Your task to perform on an android device: Search for razer nari on target.com, select the first entry, add it to the cart, then select checkout. Image 0: 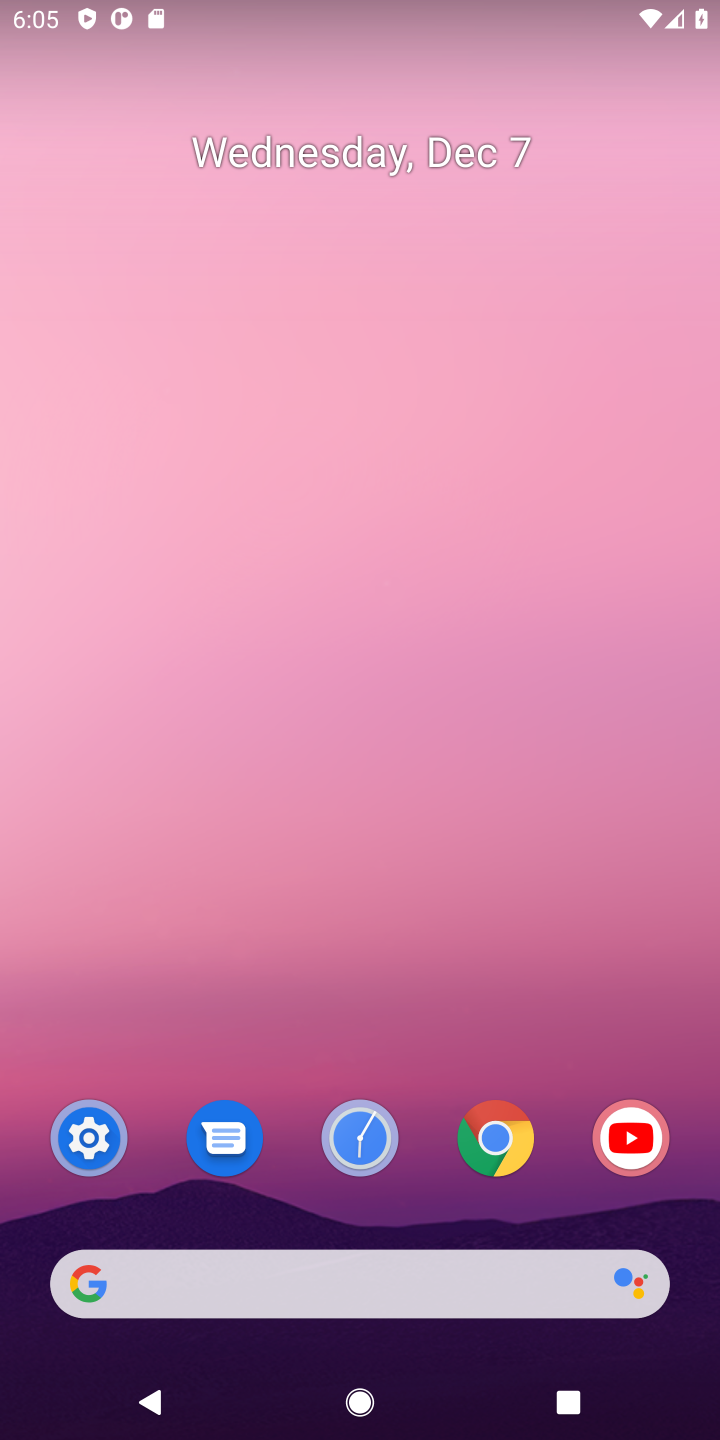
Step 0: press home button
Your task to perform on an android device: Search for razer nari on target.com, select the first entry, add it to the cart, then select checkout. Image 1: 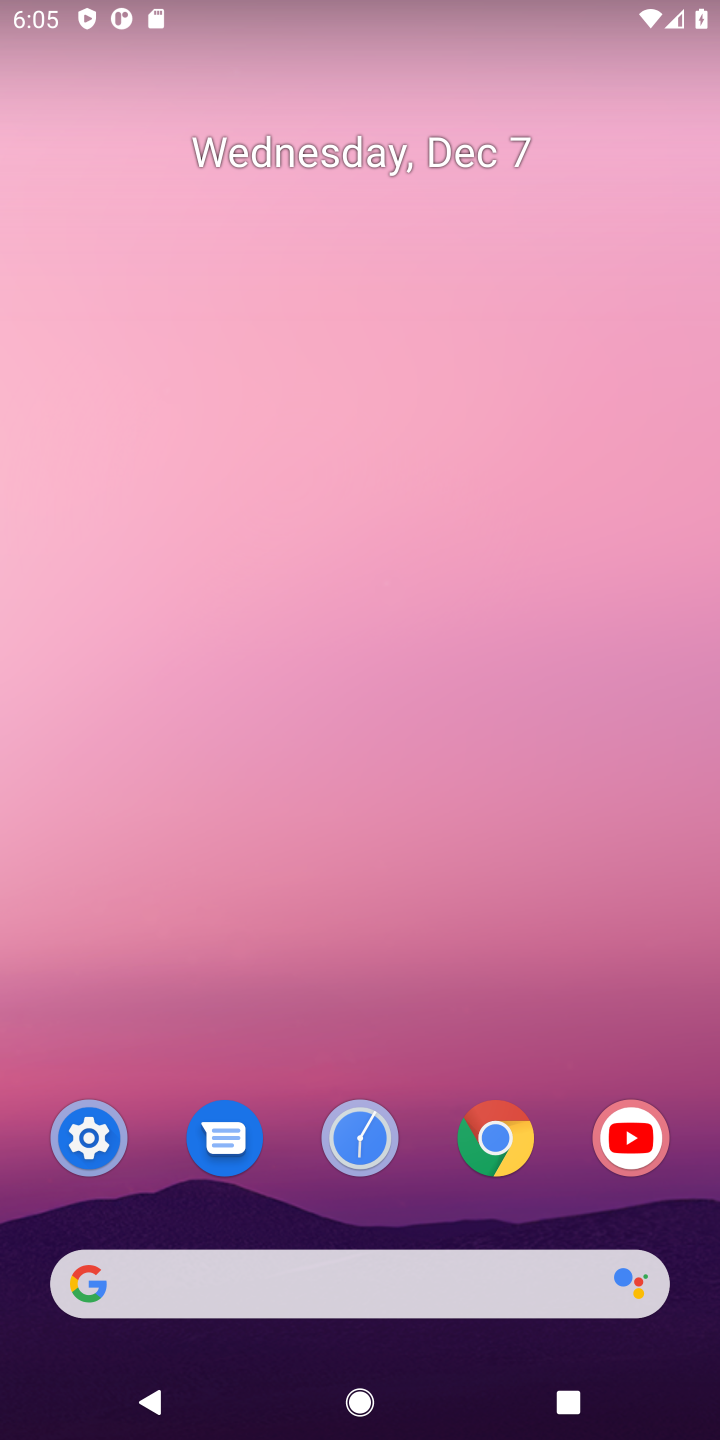
Step 1: click (140, 1290)
Your task to perform on an android device: Search for razer nari on target.com, select the first entry, add it to the cart, then select checkout. Image 2: 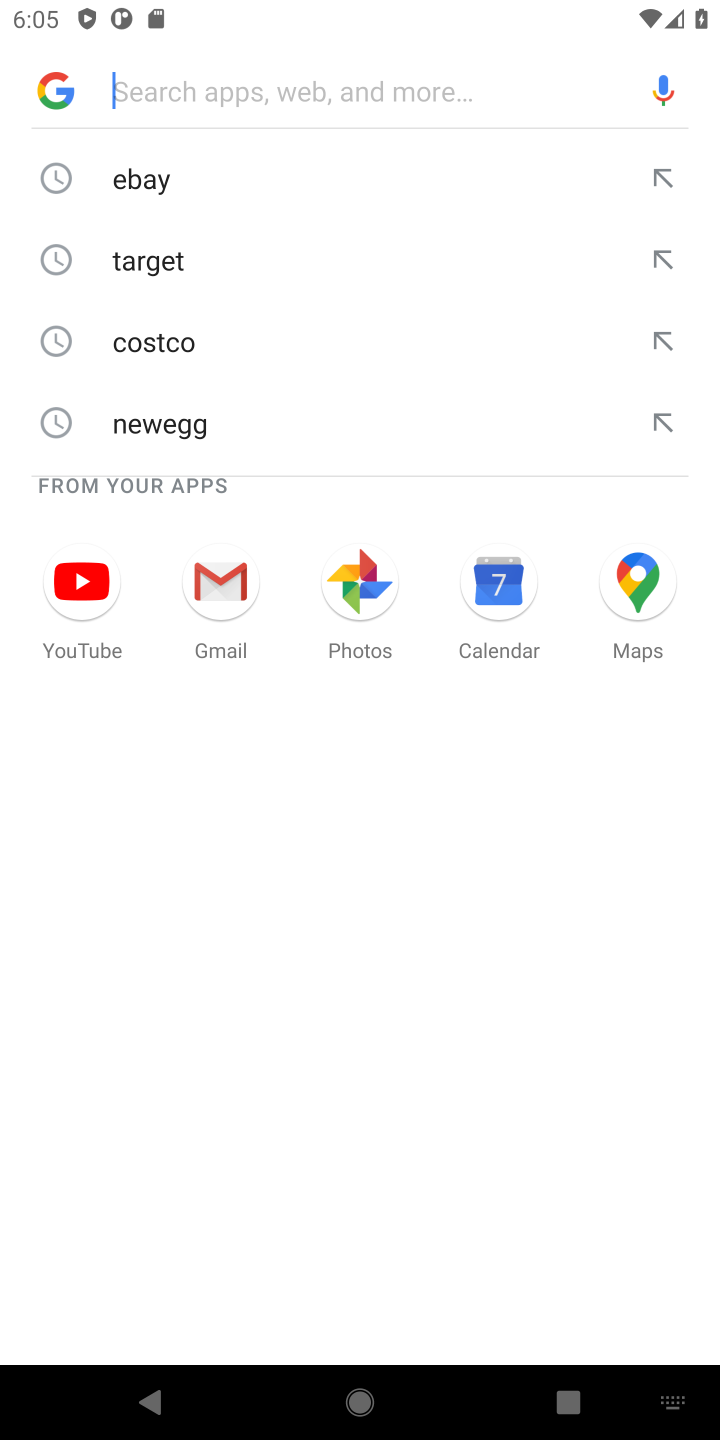
Step 2: press enter
Your task to perform on an android device: Search for razer nari on target.com, select the first entry, add it to the cart, then select checkout. Image 3: 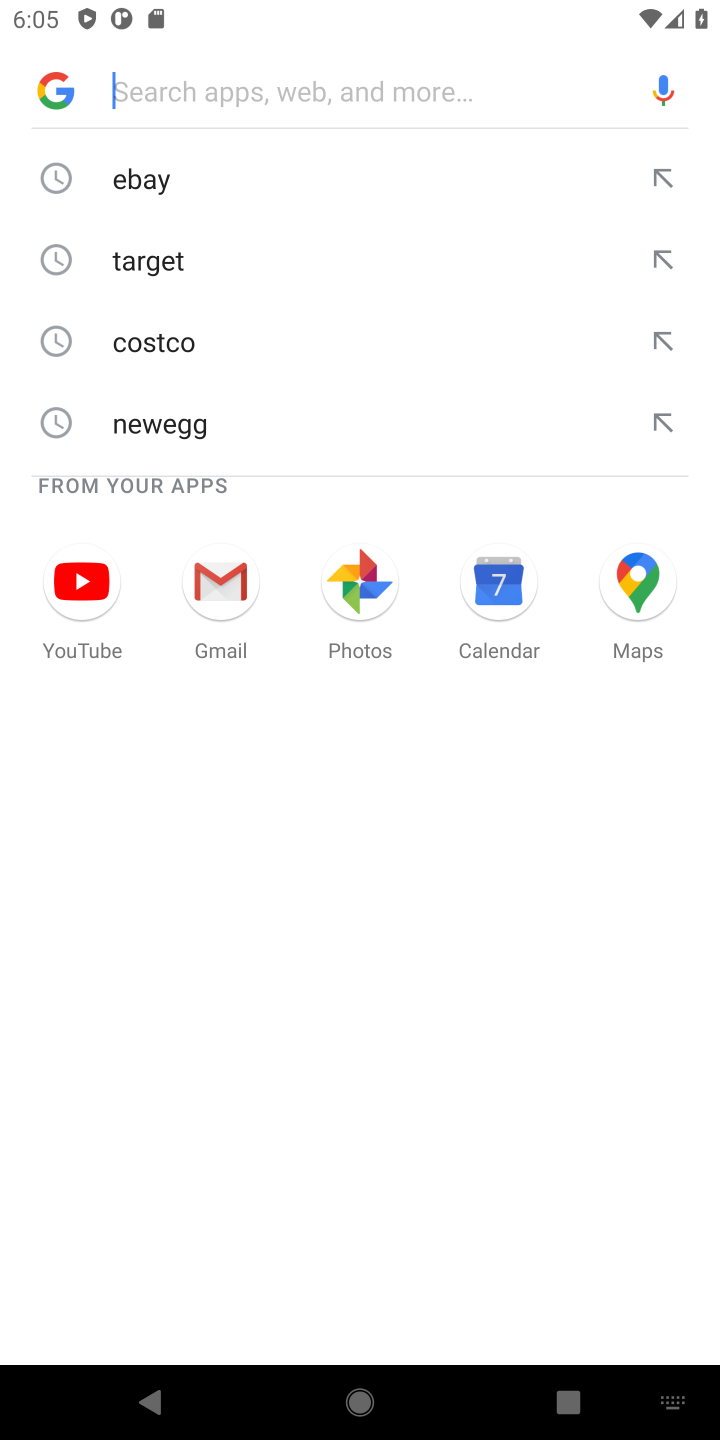
Step 3: type " target.com"
Your task to perform on an android device: Search for razer nari on target.com, select the first entry, add it to the cart, then select checkout. Image 4: 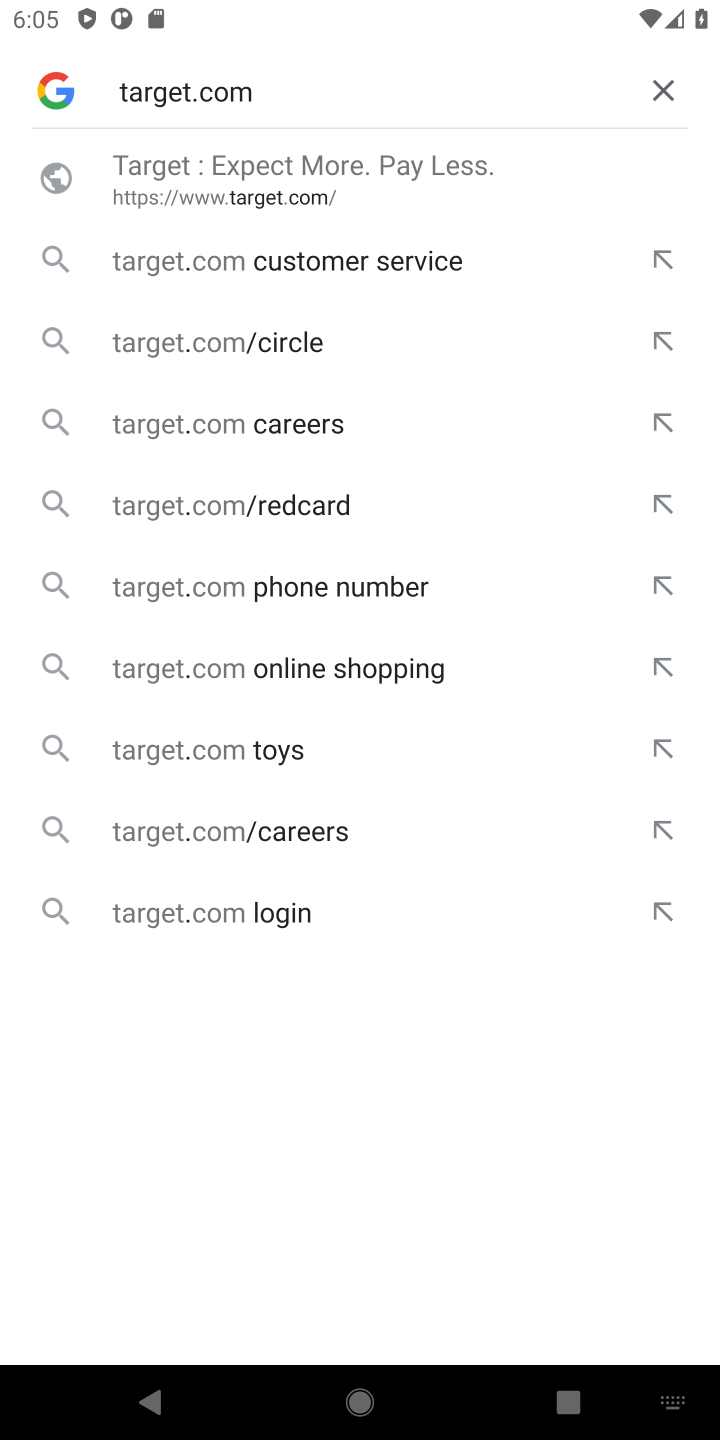
Step 4: press enter
Your task to perform on an android device: Search for razer nari on target.com, select the first entry, add it to the cart, then select checkout. Image 5: 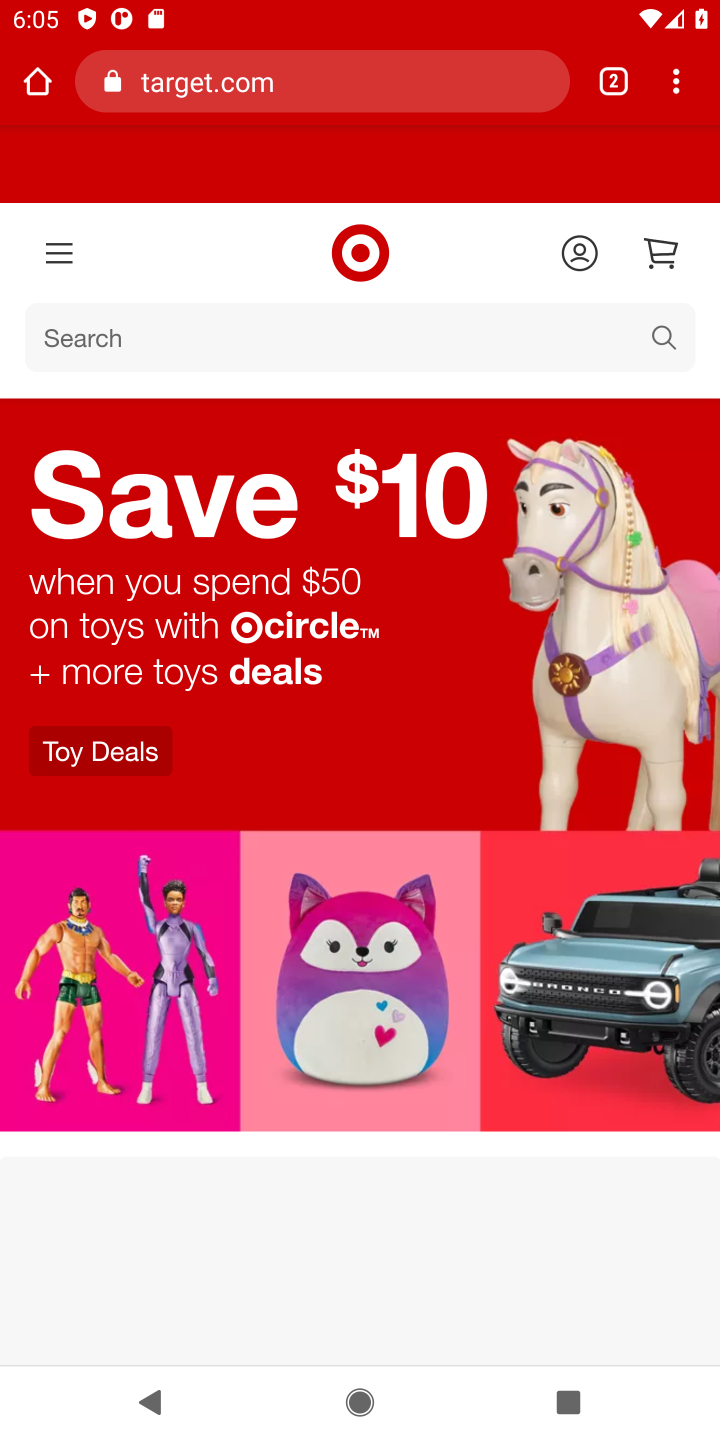
Step 5: click (162, 339)
Your task to perform on an android device: Search for razer nari on target.com, select the first entry, add it to the cart, then select checkout. Image 6: 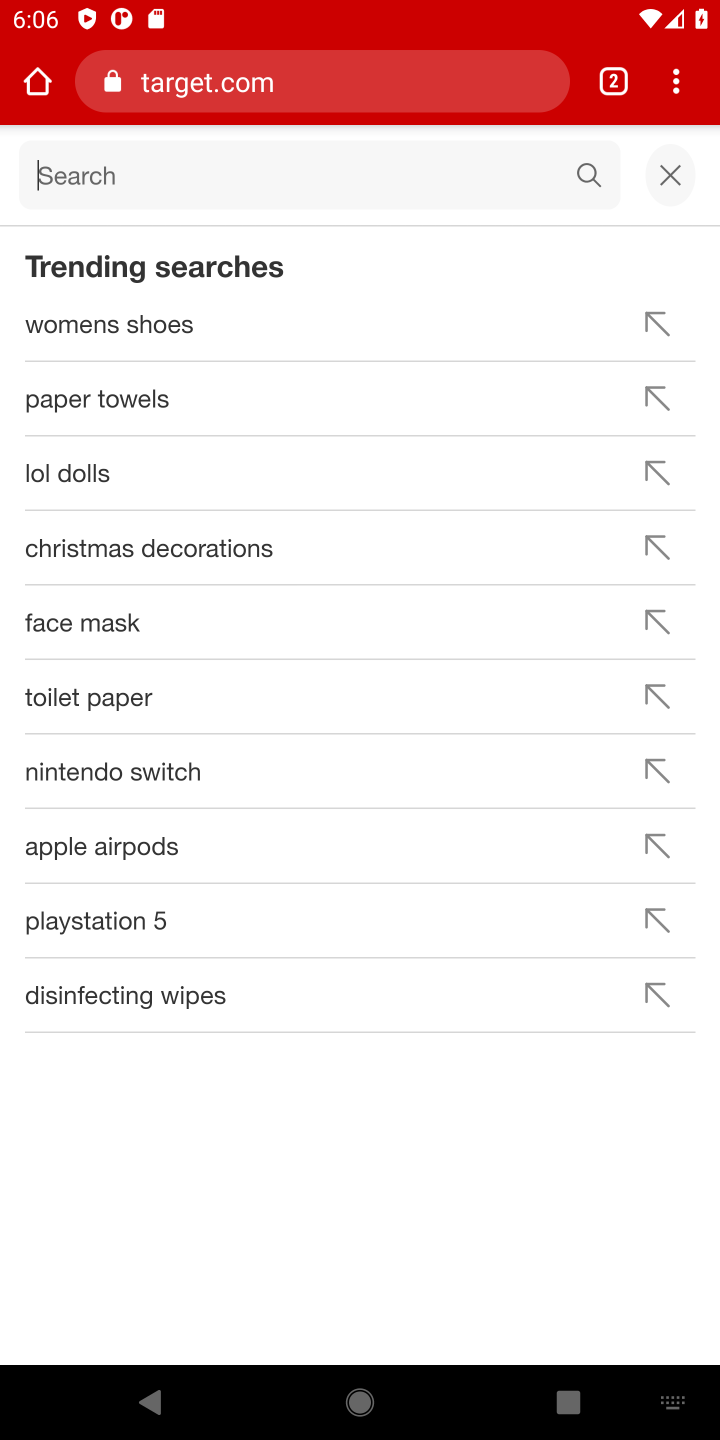
Step 6: type "razer nari"
Your task to perform on an android device: Search for razer nari on target.com, select the first entry, add it to the cart, then select checkout. Image 7: 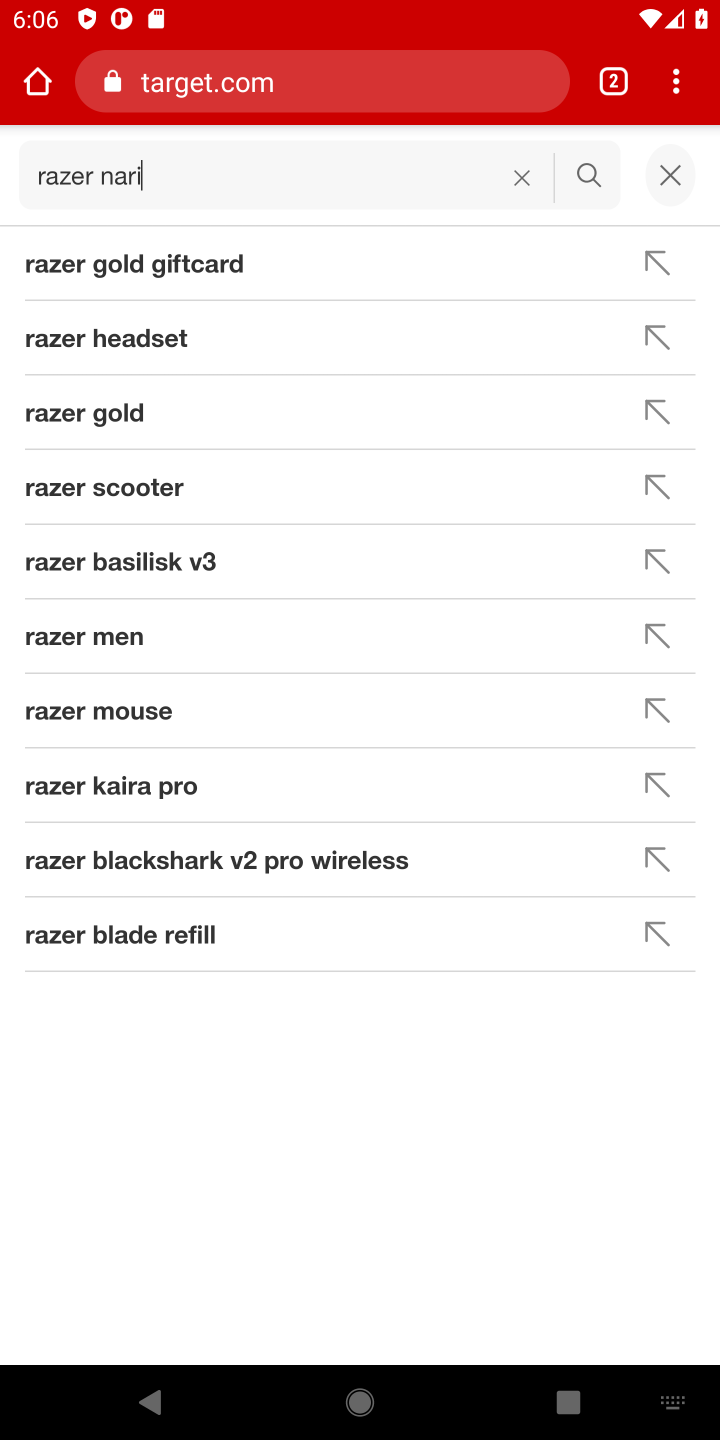
Step 7: press enter
Your task to perform on an android device: Search for razer nari on target.com, select the first entry, add it to the cart, then select checkout. Image 8: 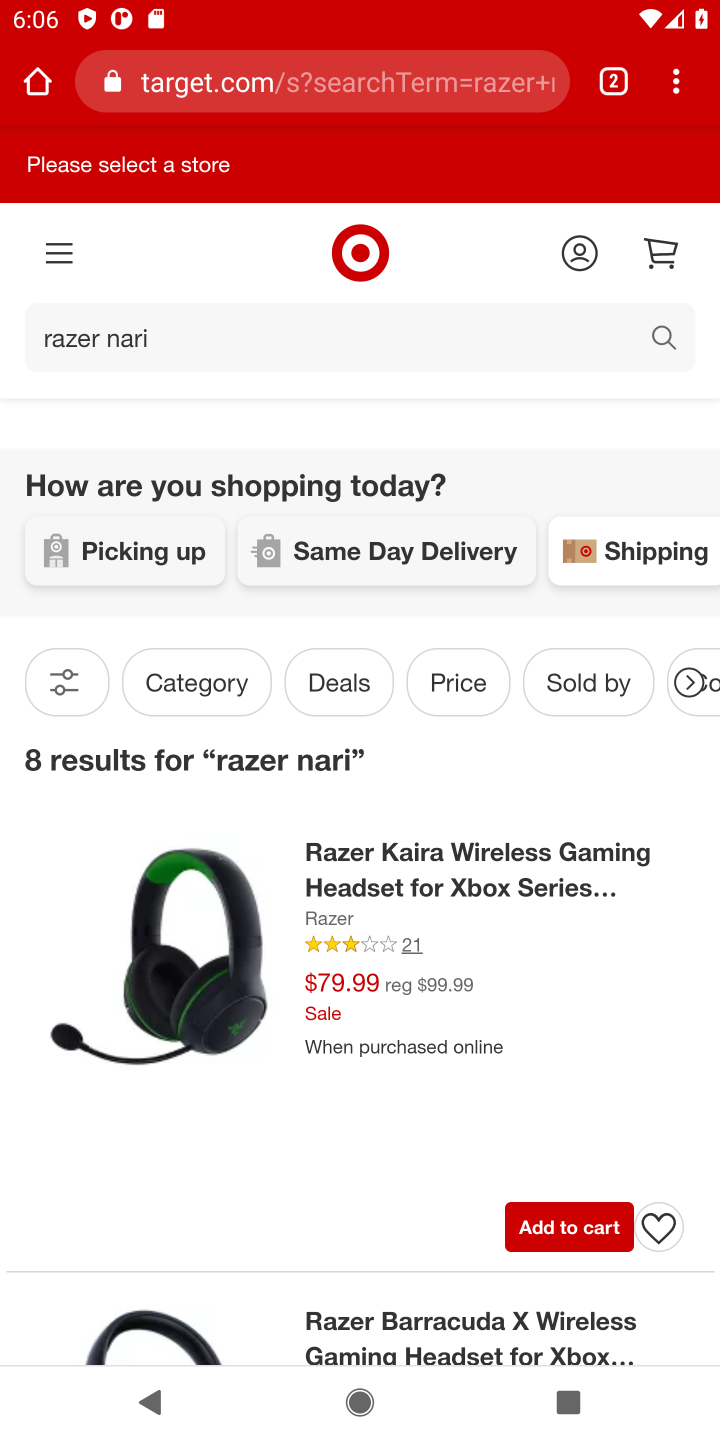
Step 8: drag from (453, 1039) to (448, 683)
Your task to perform on an android device: Search for razer nari on target.com, select the first entry, add it to the cart, then select checkout. Image 9: 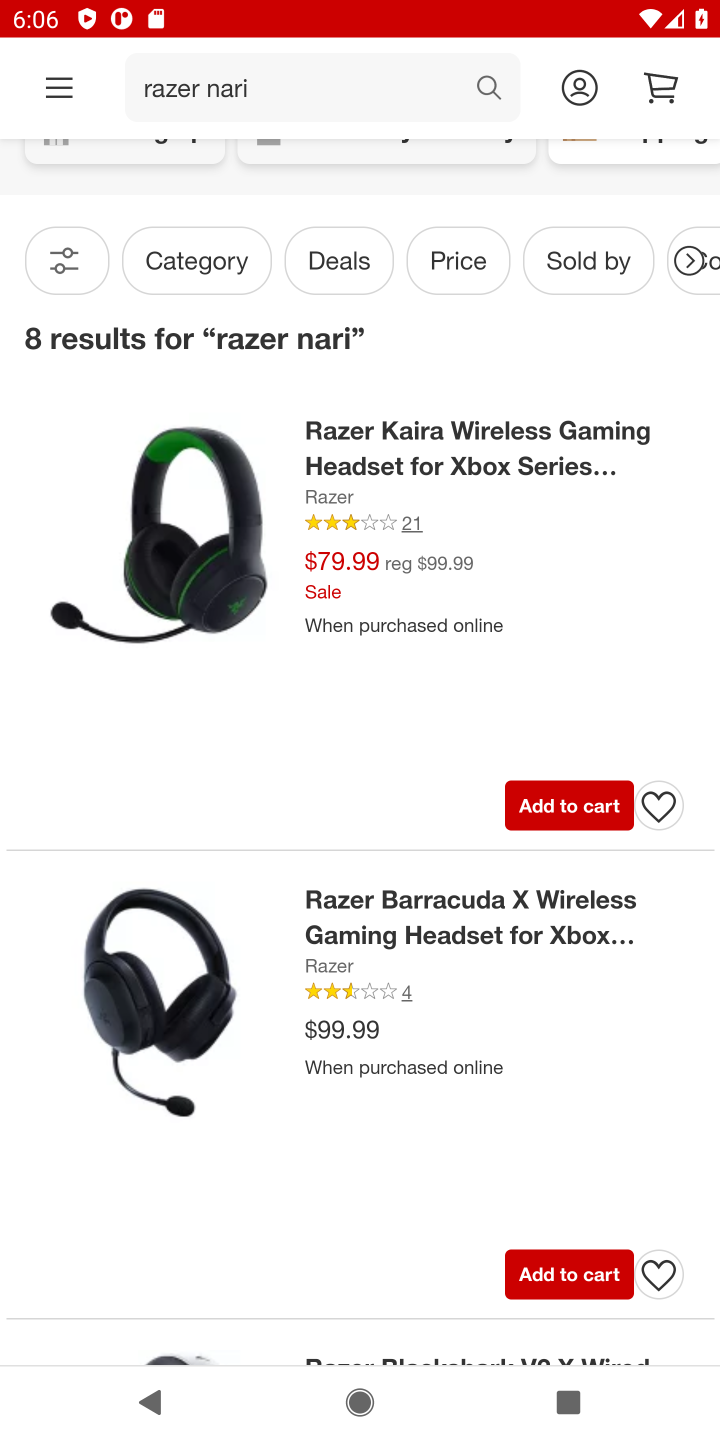
Step 9: drag from (399, 1056) to (426, 520)
Your task to perform on an android device: Search for razer nari on target.com, select the first entry, add it to the cart, then select checkout. Image 10: 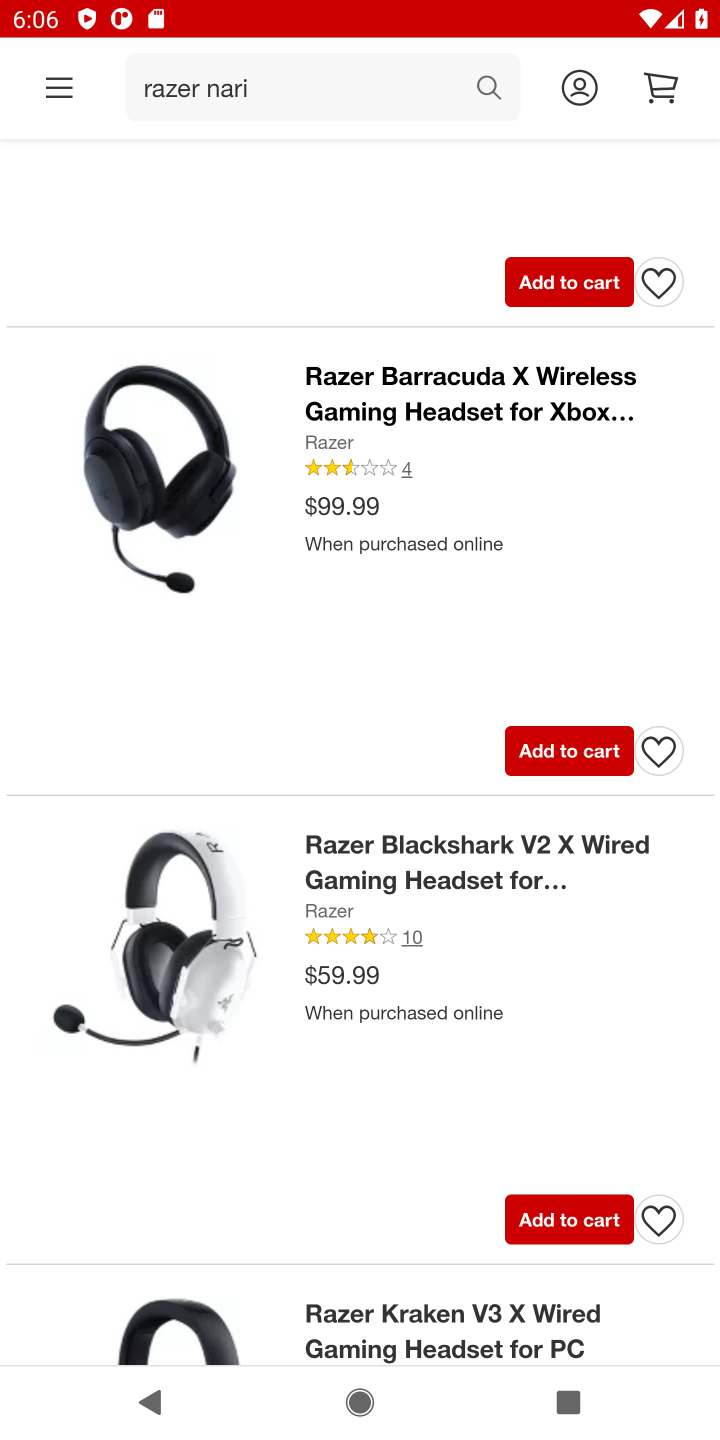
Step 10: drag from (403, 1071) to (417, 549)
Your task to perform on an android device: Search for razer nari on target.com, select the first entry, add it to the cart, then select checkout. Image 11: 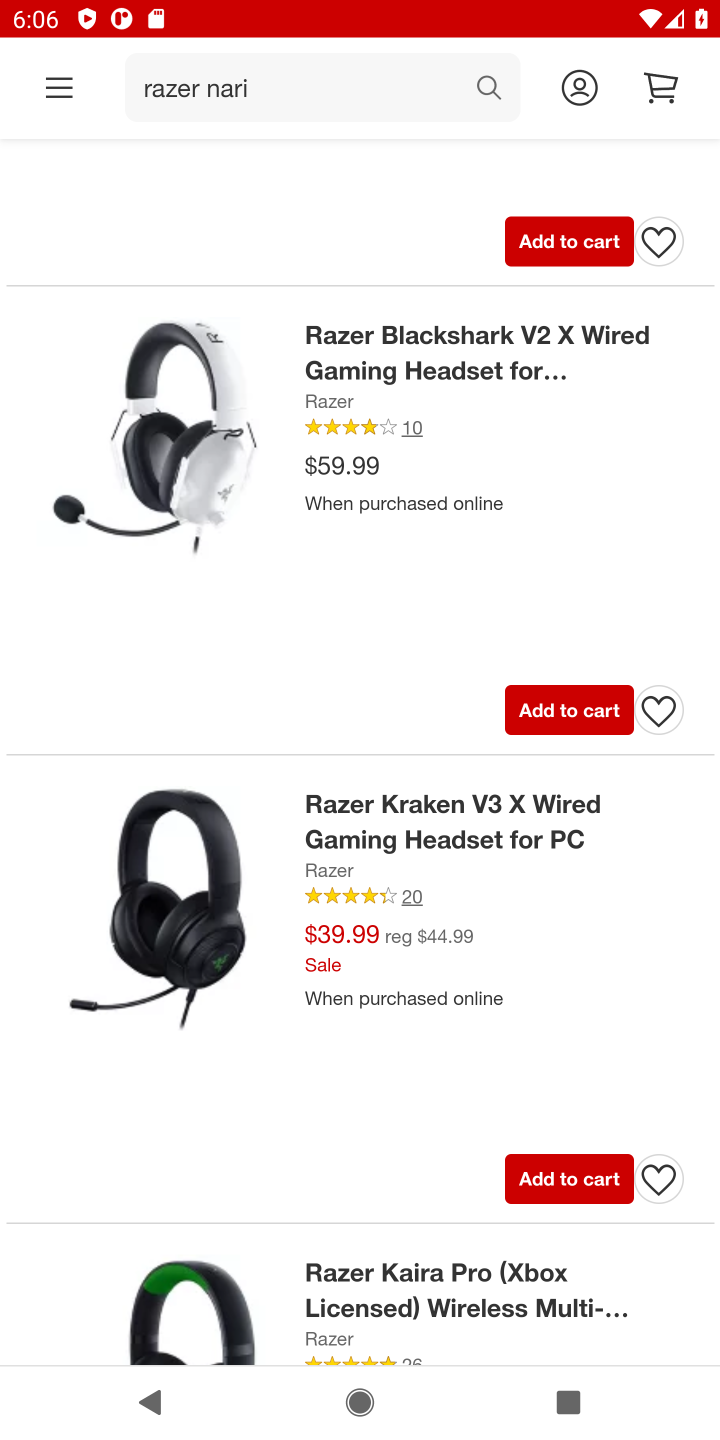
Step 11: drag from (392, 1211) to (379, 572)
Your task to perform on an android device: Search for razer nari on target.com, select the first entry, add it to the cart, then select checkout. Image 12: 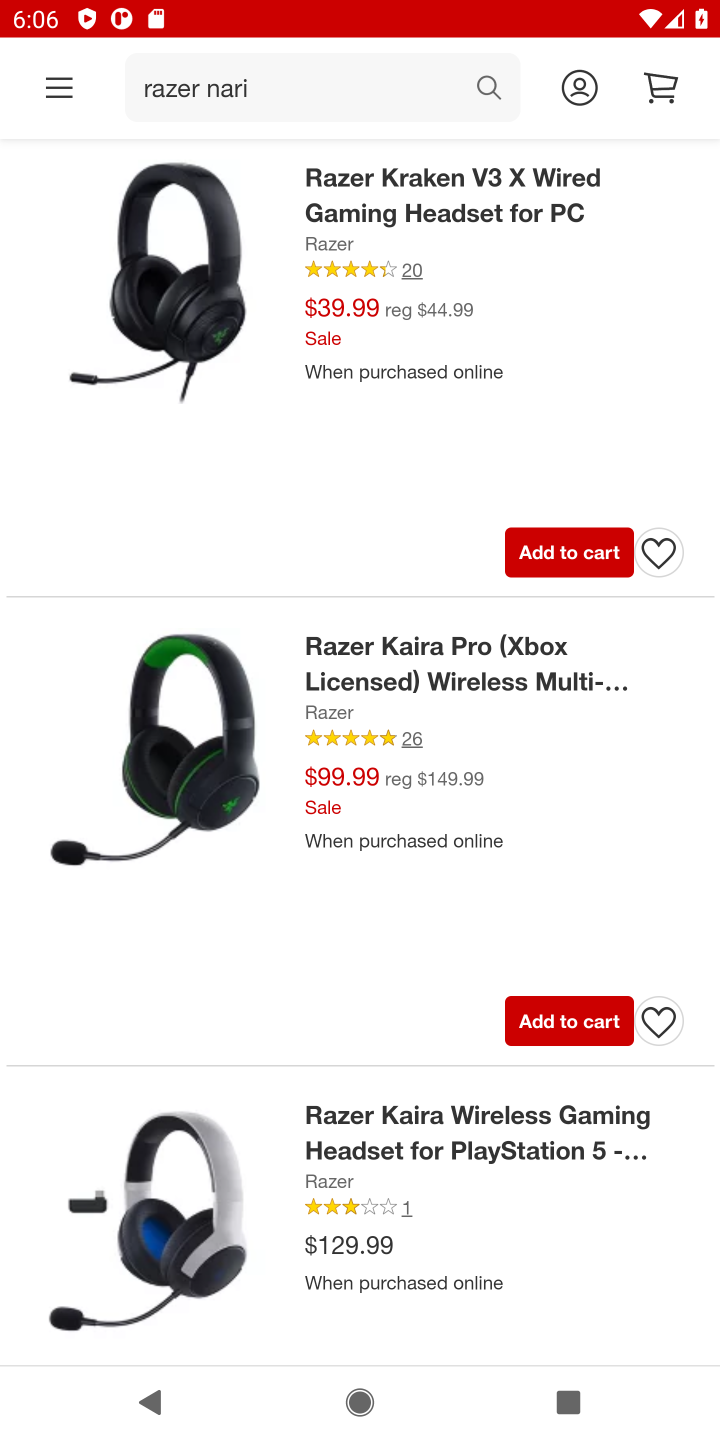
Step 12: drag from (413, 1245) to (420, 733)
Your task to perform on an android device: Search for razer nari on target.com, select the first entry, add it to the cart, then select checkout. Image 13: 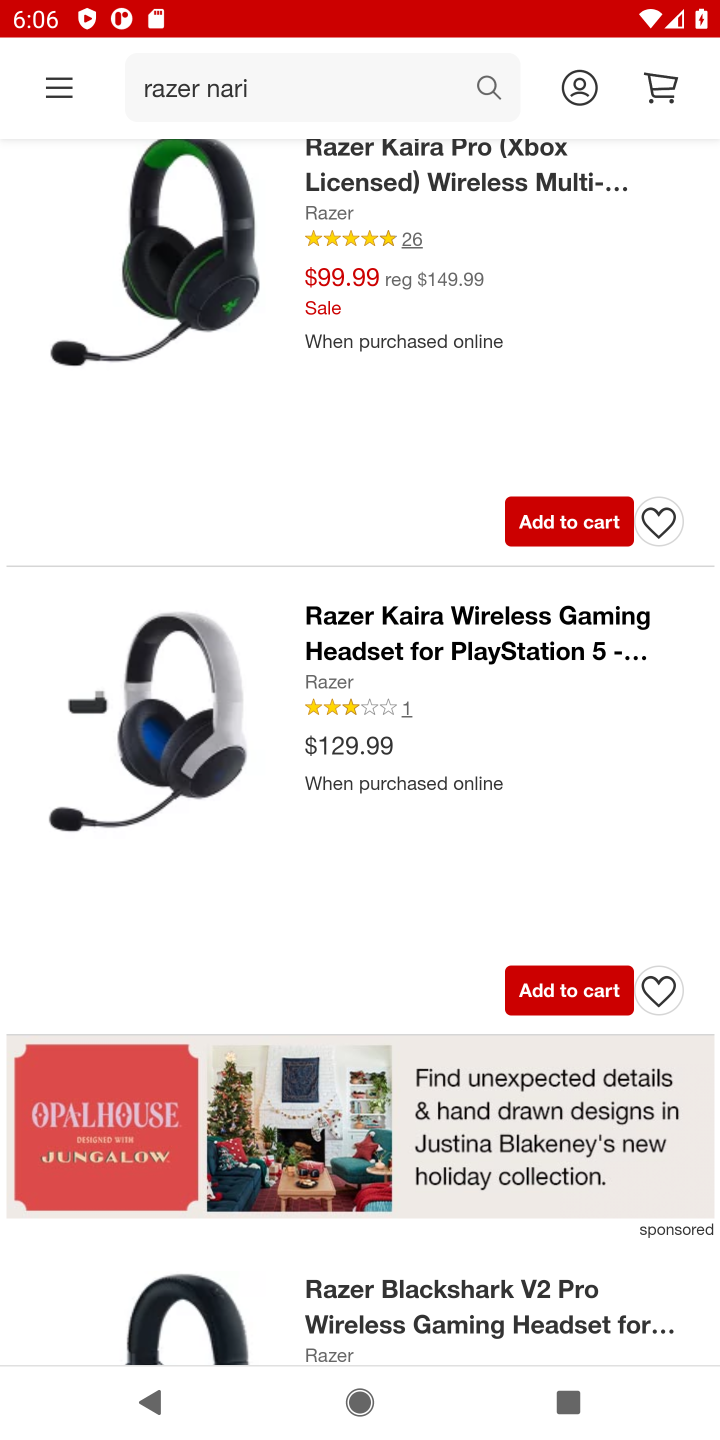
Step 13: drag from (415, 420) to (410, 1147)
Your task to perform on an android device: Search for razer nari on target.com, select the first entry, add it to the cart, then select checkout. Image 14: 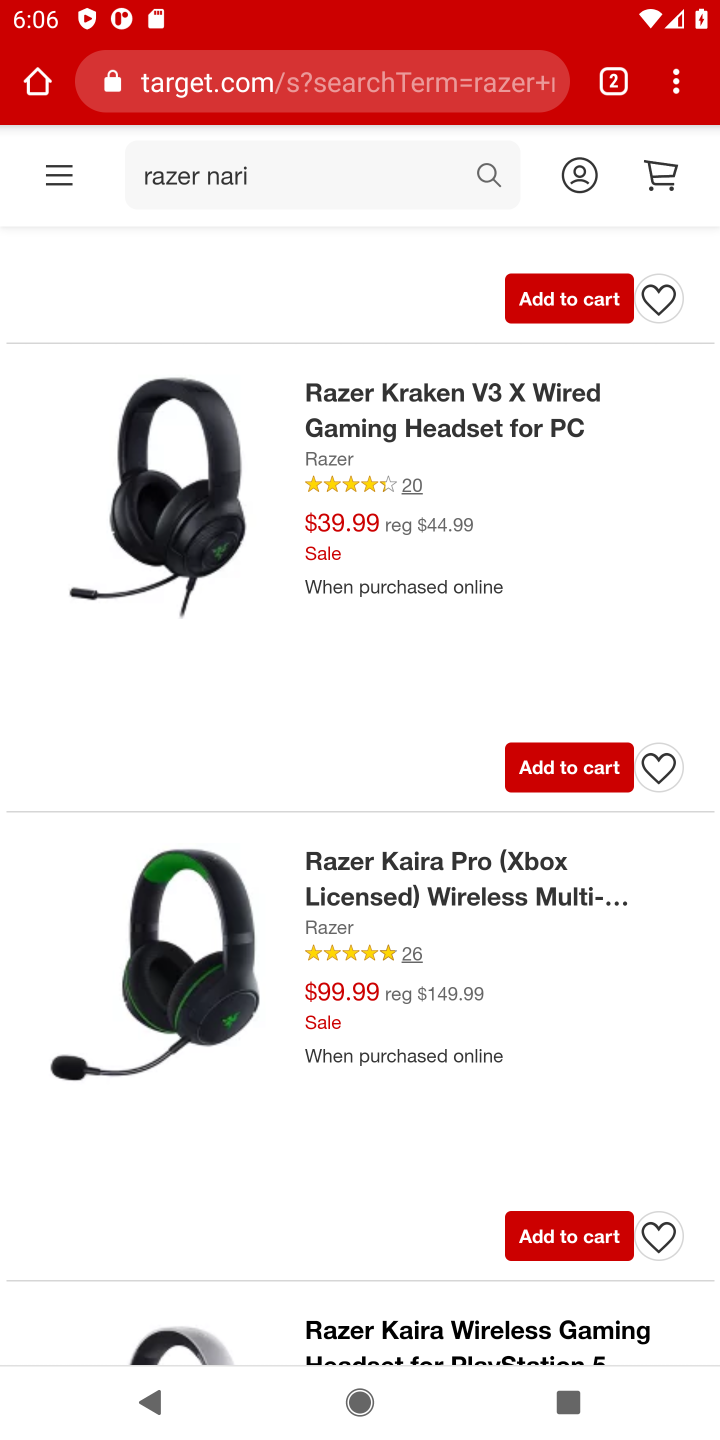
Step 14: drag from (409, 501) to (411, 1069)
Your task to perform on an android device: Search for razer nari on target.com, select the first entry, add it to the cart, then select checkout. Image 15: 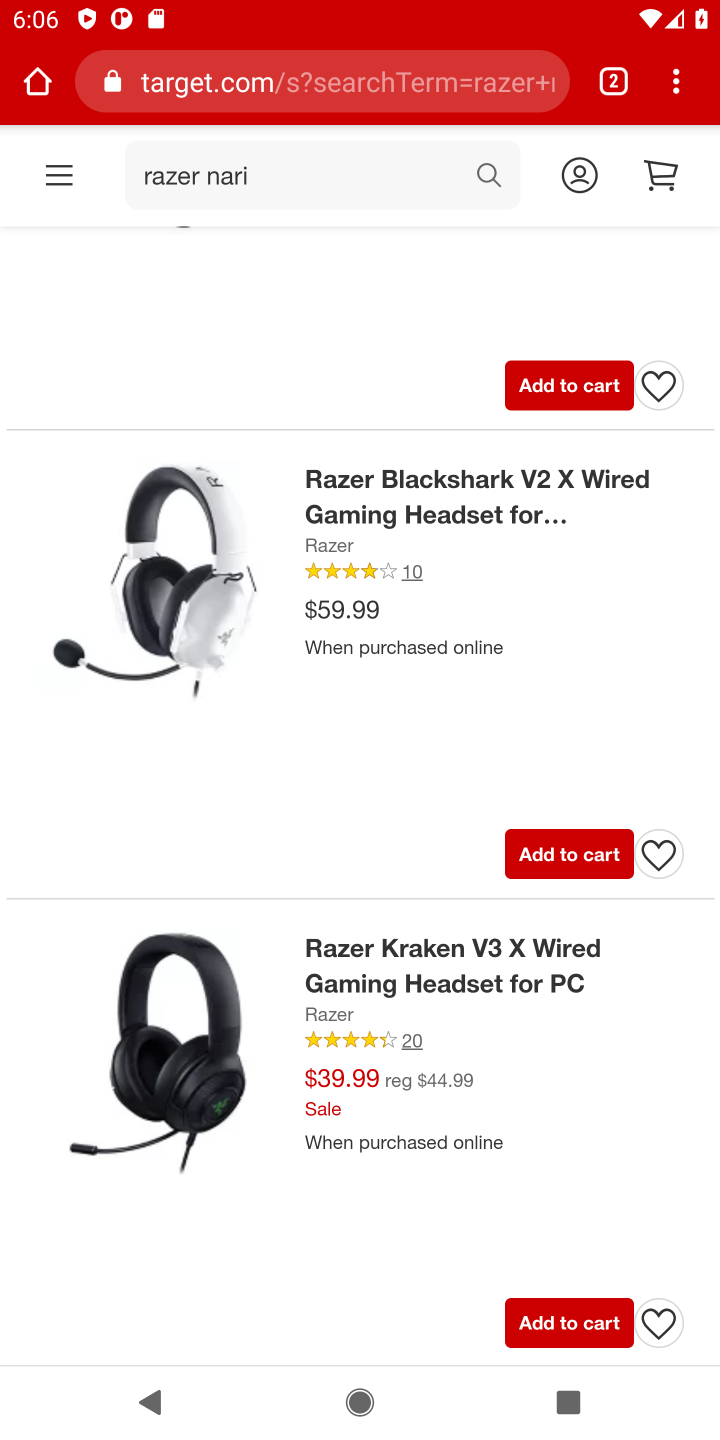
Step 15: drag from (415, 411) to (395, 1071)
Your task to perform on an android device: Search for razer nari on target.com, select the first entry, add it to the cart, then select checkout. Image 16: 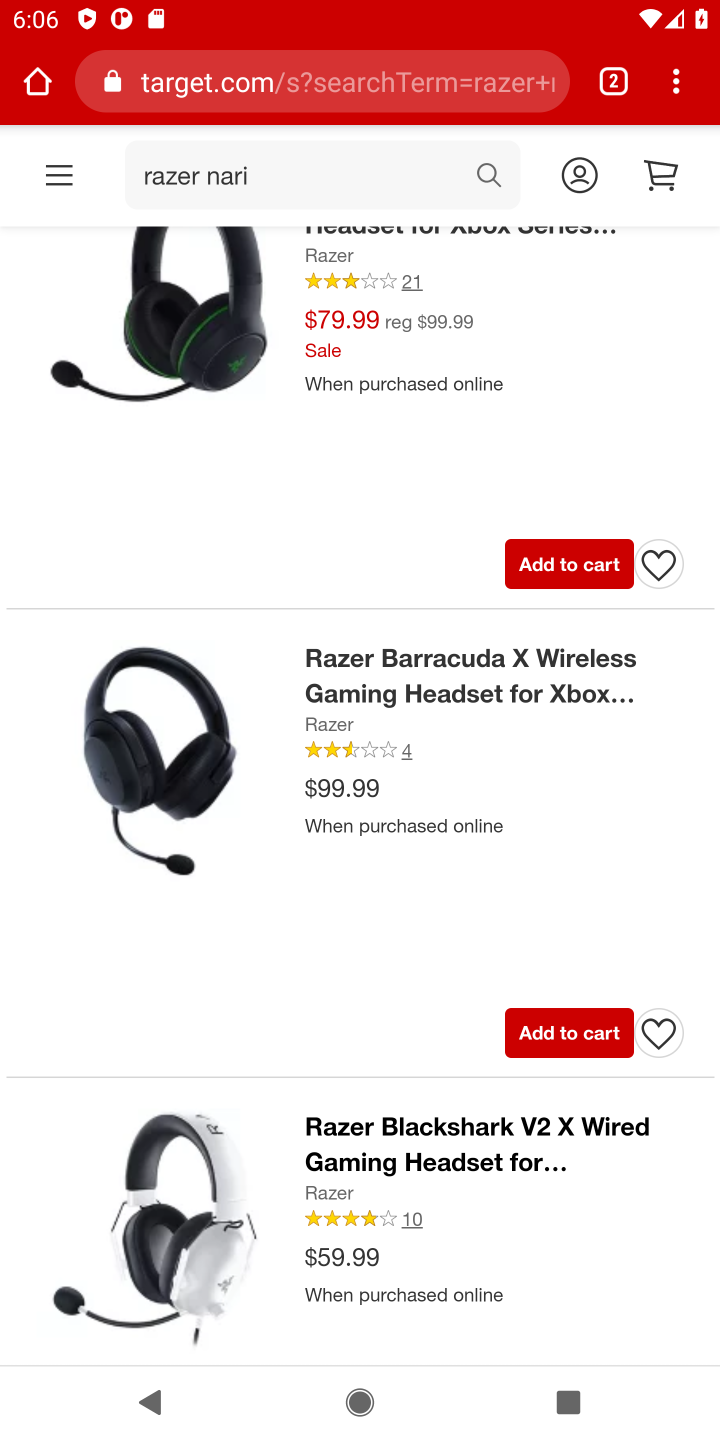
Step 16: drag from (377, 320) to (389, 1043)
Your task to perform on an android device: Search for razer nari on target.com, select the first entry, add it to the cart, then select checkout. Image 17: 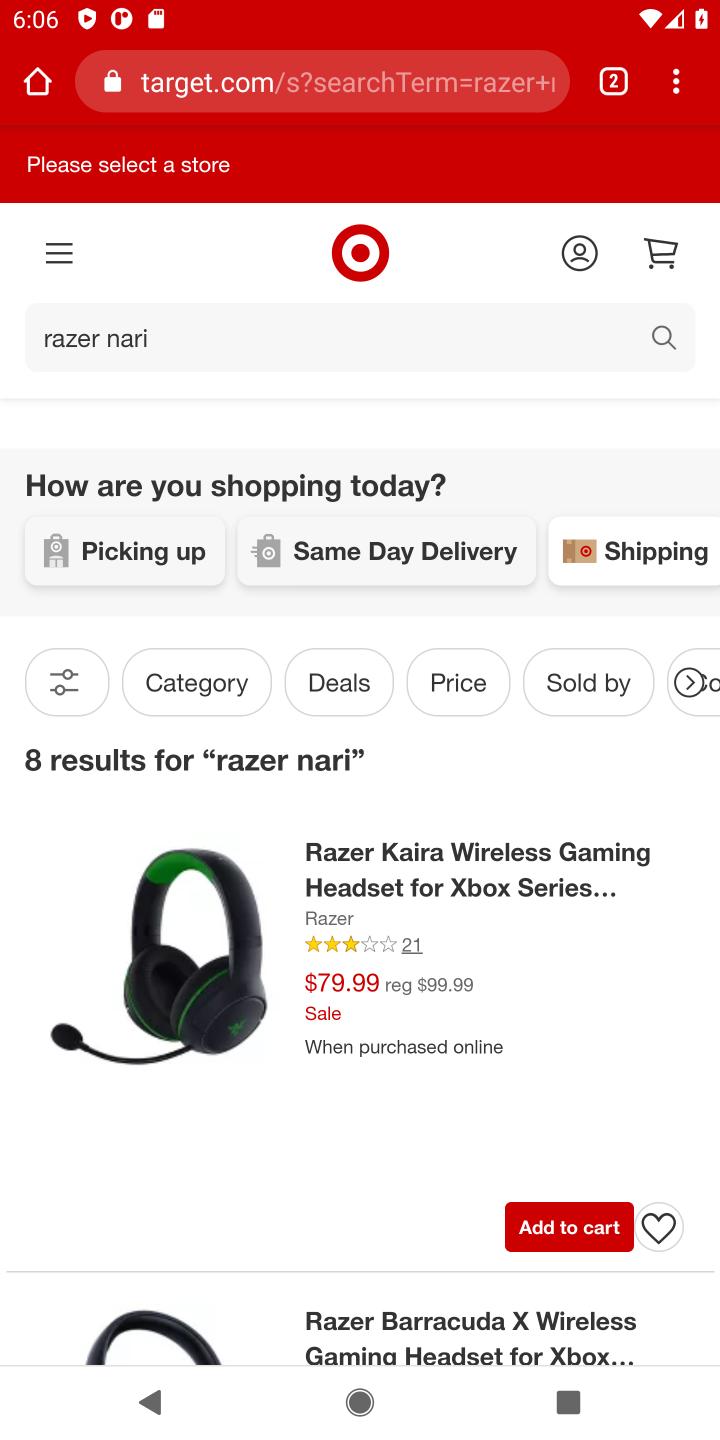
Step 17: click (569, 1227)
Your task to perform on an android device: Search for razer nari on target.com, select the first entry, add it to the cart, then select checkout. Image 18: 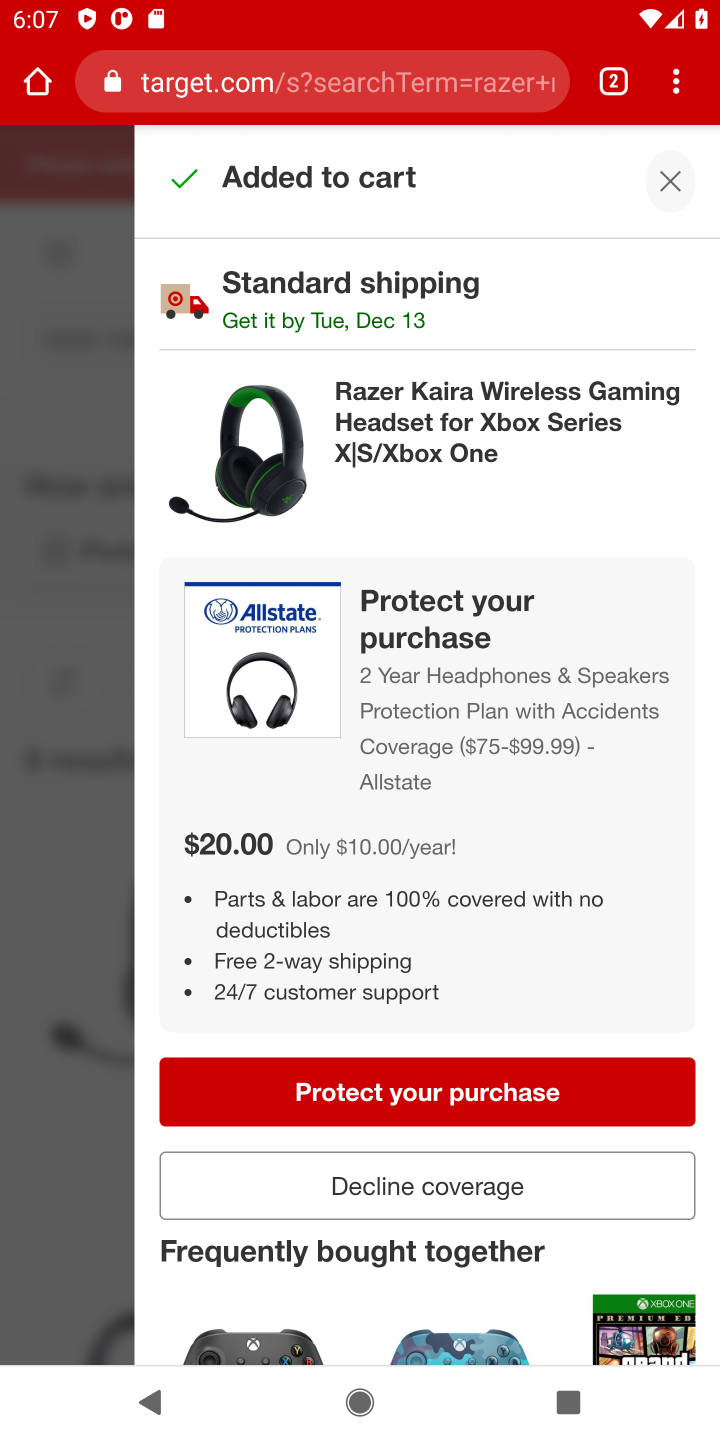
Step 18: click (383, 1181)
Your task to perform on an android device: Search for razer nari on target.com, select the first entry, add it to the cart, then select checkout. Image 19: 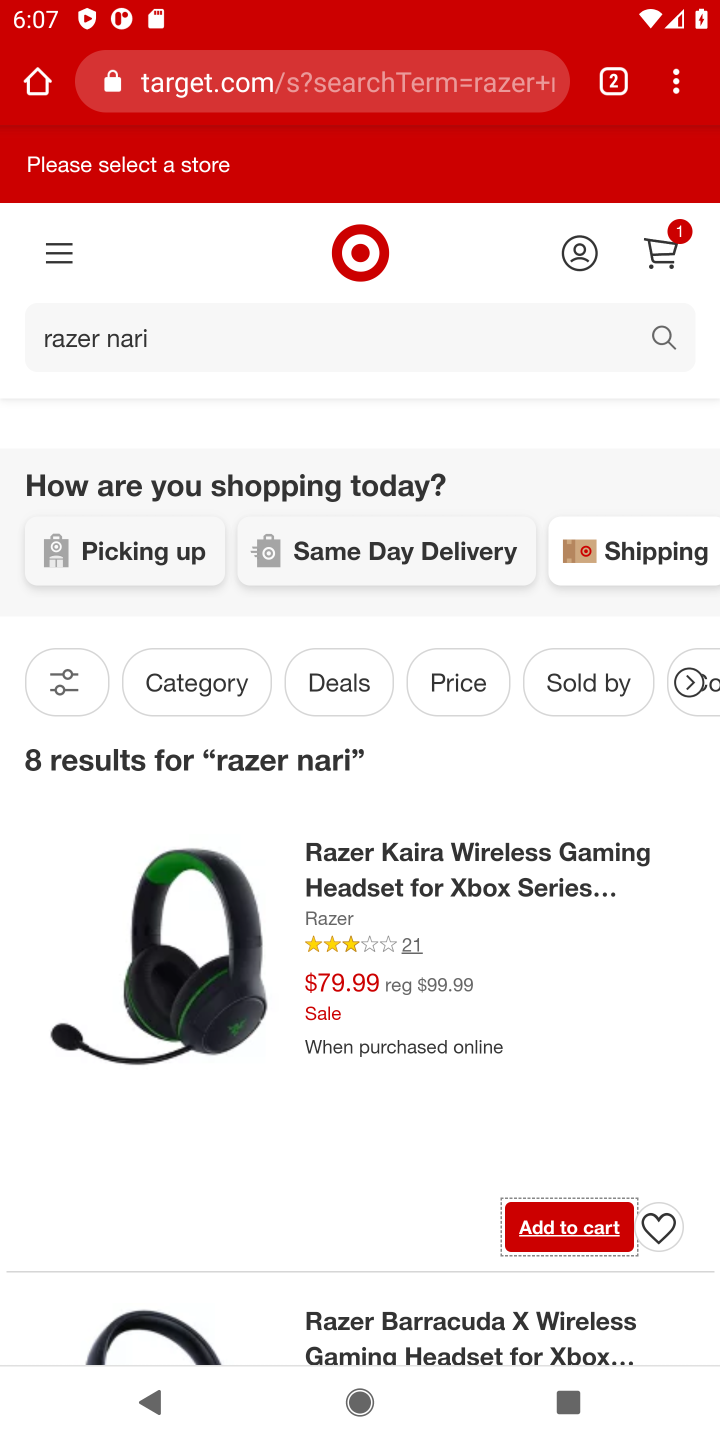
Step 19: click (671, 236)
Your task to perform on an android device: Search for razer nari on target.com, select the first entry, add it to the cart, then select checkout. Image 20: 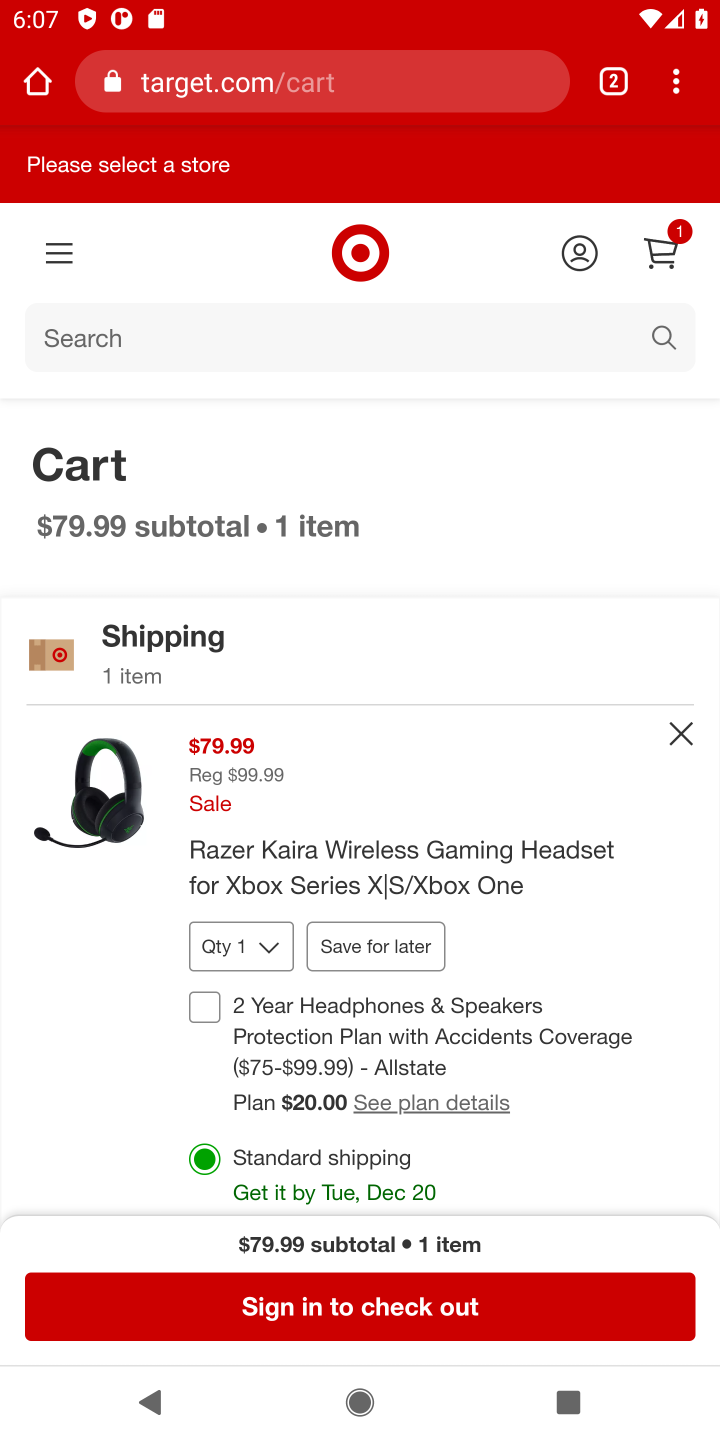
Step 20: click (414, 1317)
Your task to perform on an android device: Search for razer nari on target.com, select the first entry, add it to the cart, then select checkout. Image 21: 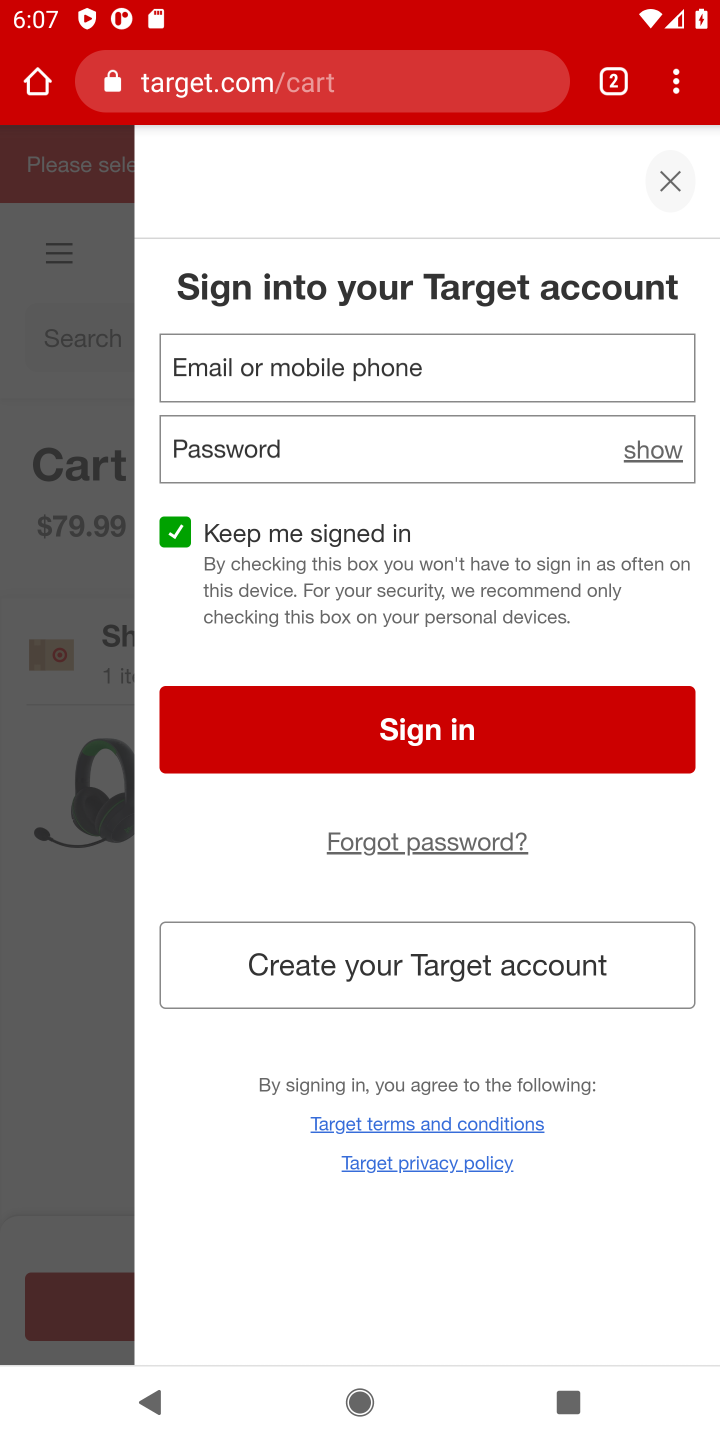
Step 21: task complete